Your task to perform on an android device: See recent photos Image 0: 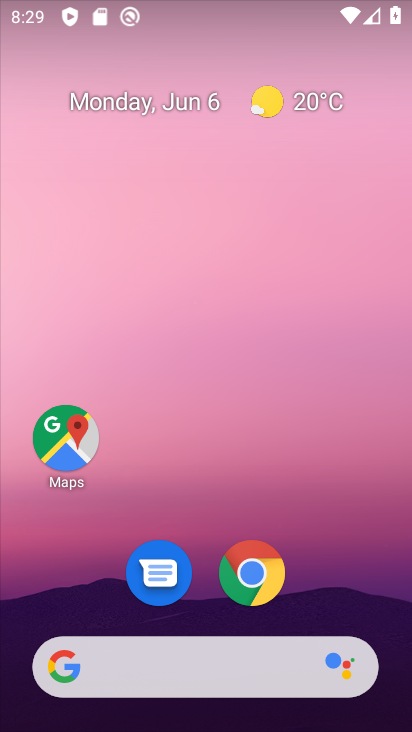
Step 0: drag from (169, 599) to (215, 85)
Your task to perform on an android device: See recent photos Image 1: 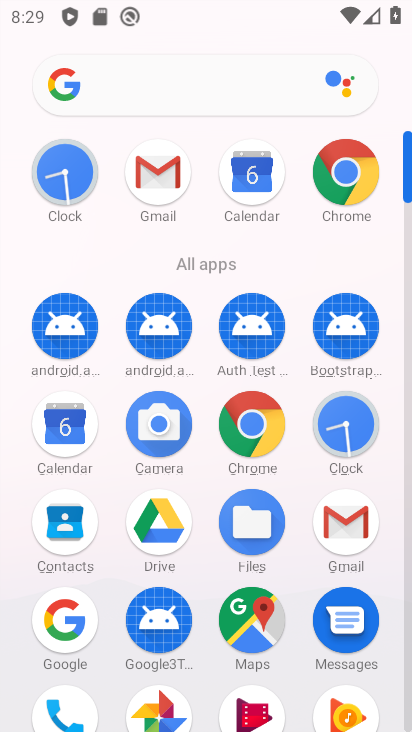
Step 1: click (62, 629)
Your task to perform on an android device: See recent photos Image 2: 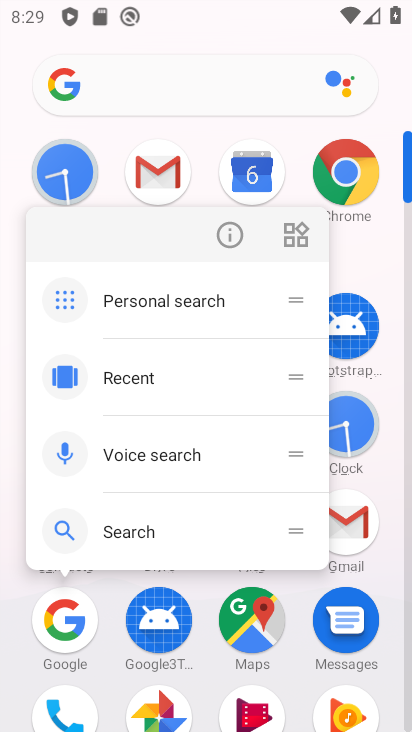
Step 2: click (226, 227)
Your task to perform on an android device: See recent photos Image 3: 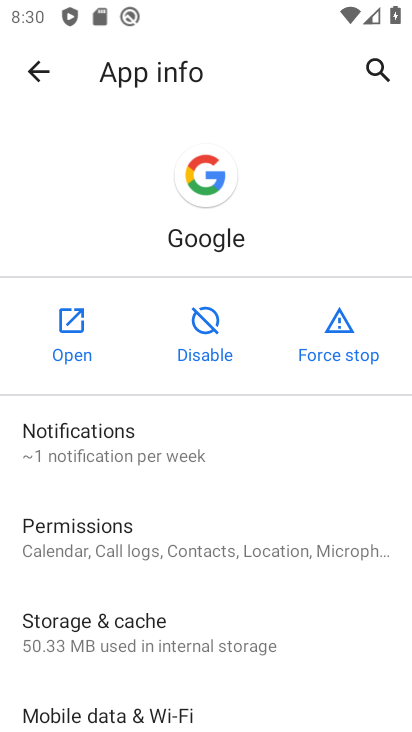
Step 3: press back button
Your task to perform on an android device: See recent photos Image 4: 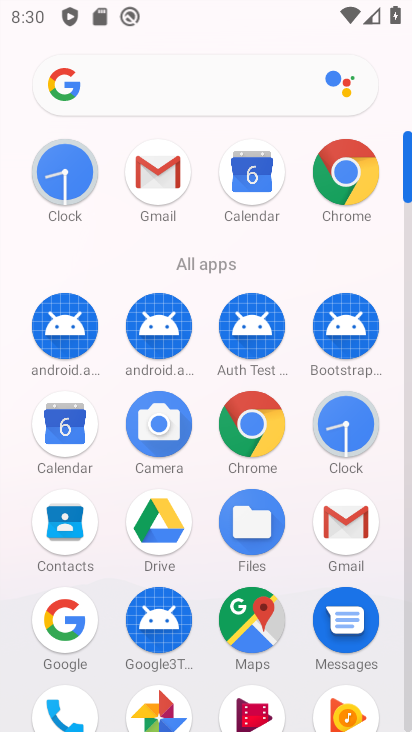
Step 4: click (166, 697)
Your task to perform on an android device: See recent photos Image 5: 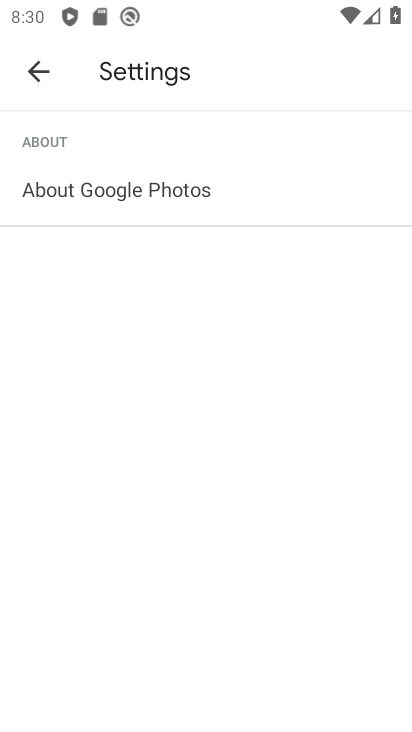
Step 5: press back button
Your task to perform on an android device: See recent photos Image 6: 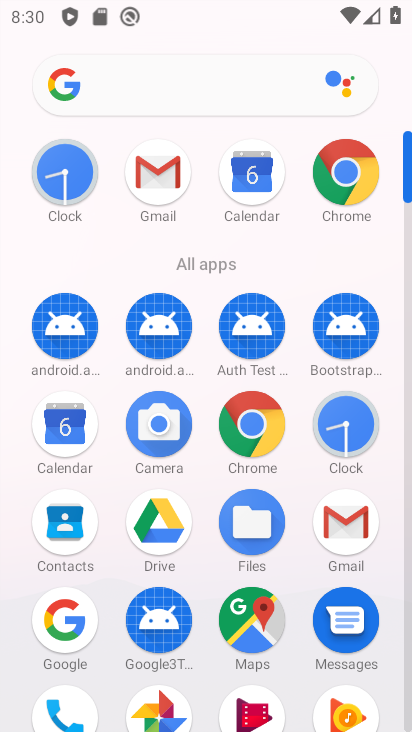
Step 6: click (153, 709)
Your task to perform on an android device: See recent photos Image 7: 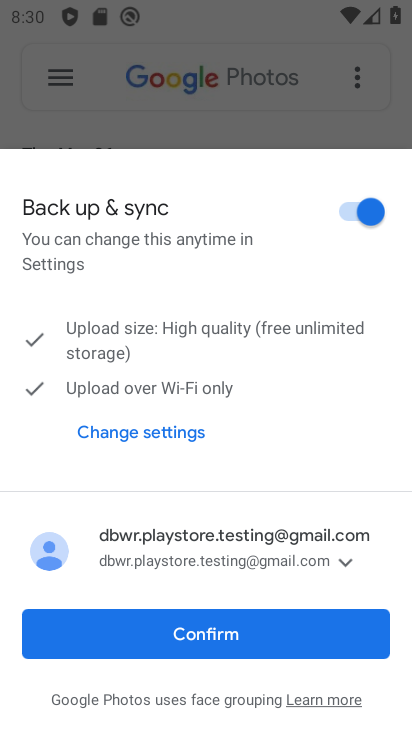
Step 7: click (242, 646)
Your task to perform on an android device: See recent photos Image 8: 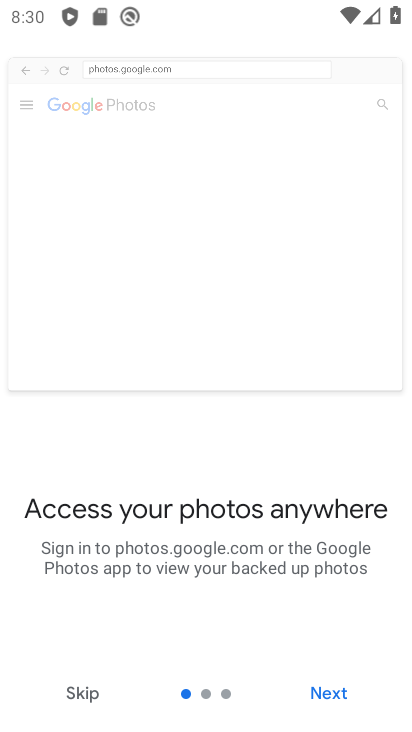
Step 8: click (65, 687)
Your task to perform on an android device: See recent photos Image 9: 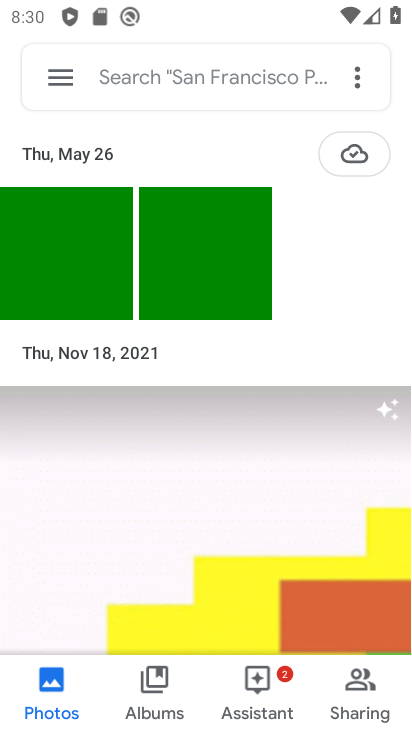
Step 9: task complete